Your task to perform on an android device: Add macbook air to the cart on walmart Image 0: 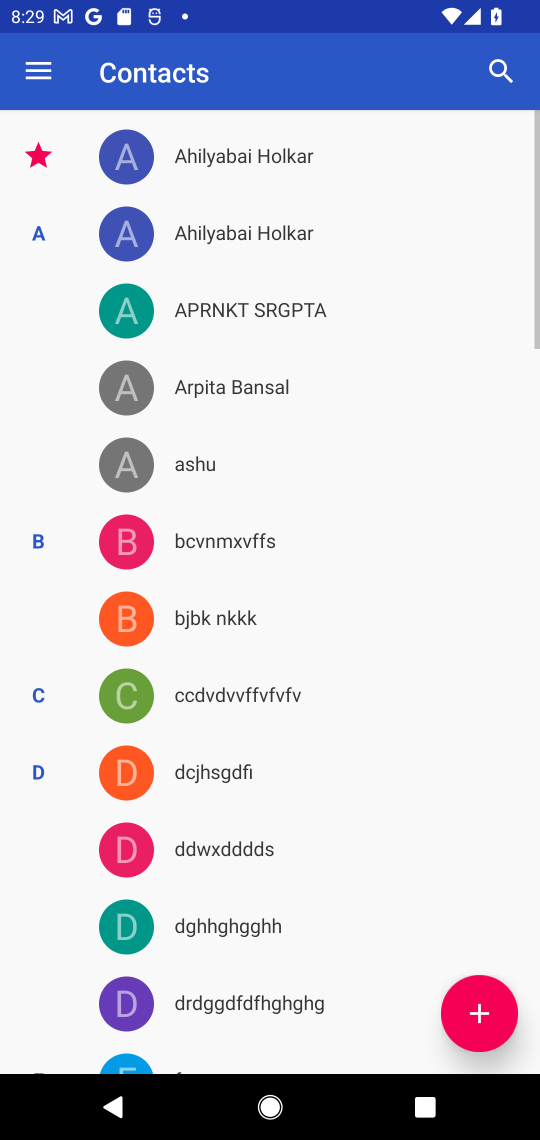
Step 0: press home button
Your task to perform on an android device: Add macbook air to the cart on walmart Image 1: 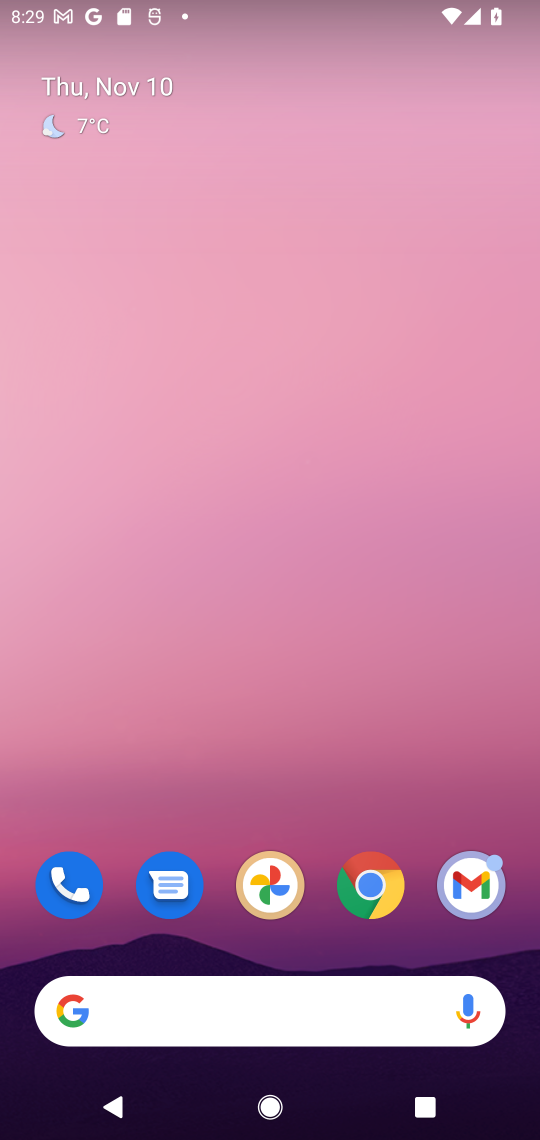
Step 1: click (365, 886)
Your task to perform on an android device: Add macbook air to the cart on walmart Image 2: 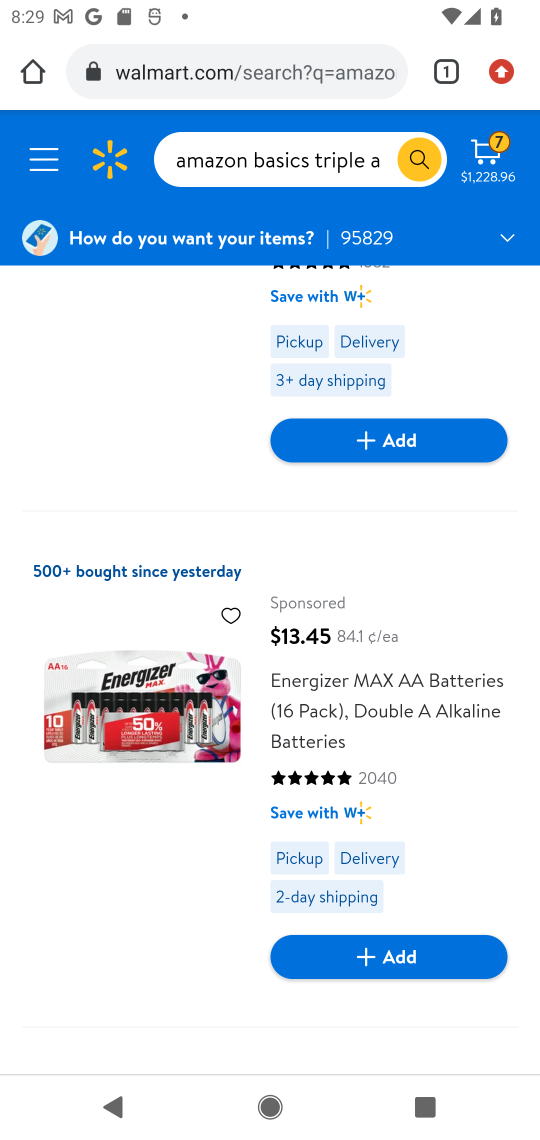
Step 2: click (363, 152)
Your task to perform on an android device: Add macbook air to the cart on walmart Image 3: 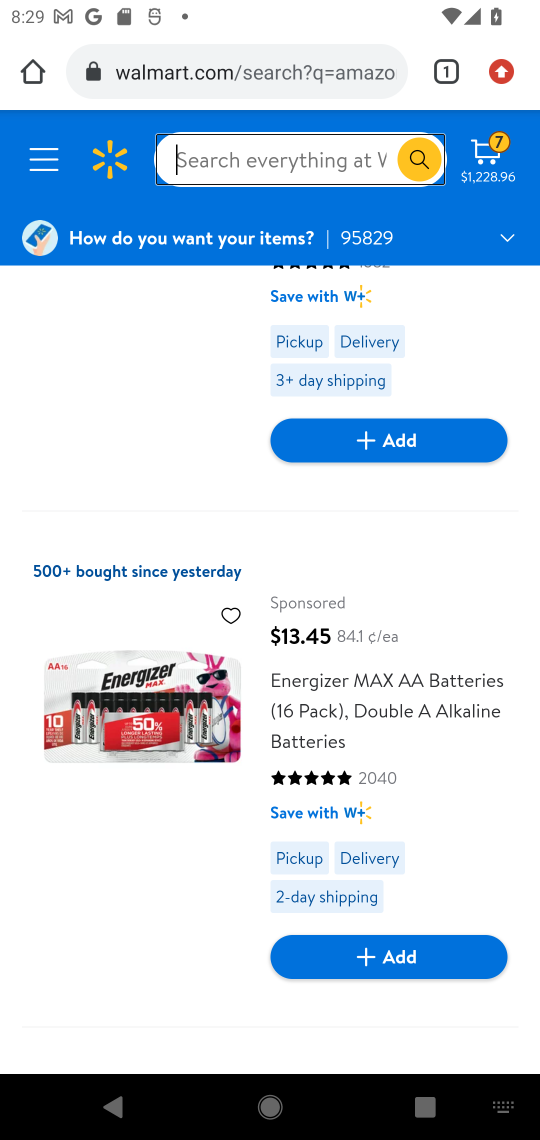
Step 3: type "macbook air"
Your task to perform on an android device: Add macbook air to the cart on walmart Image 4: 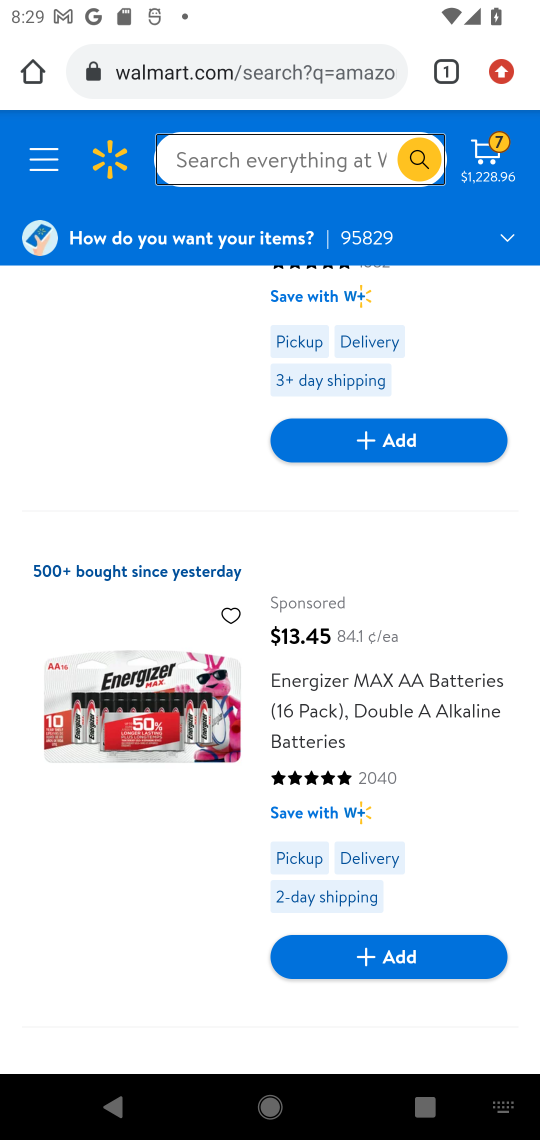
Step 4: press enter
Your task to perform on an android device: Add macbook air to the cart on walmart Image 5: 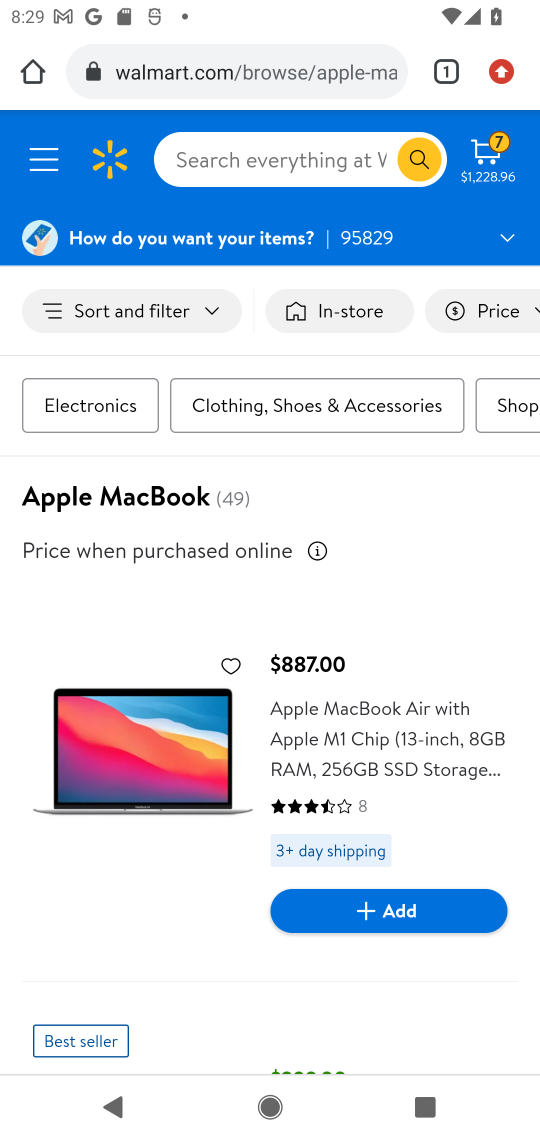
Step 5: click (143, 755)
Your task to perform on an android device: Add macbook air to the cart on walmart Image 6: 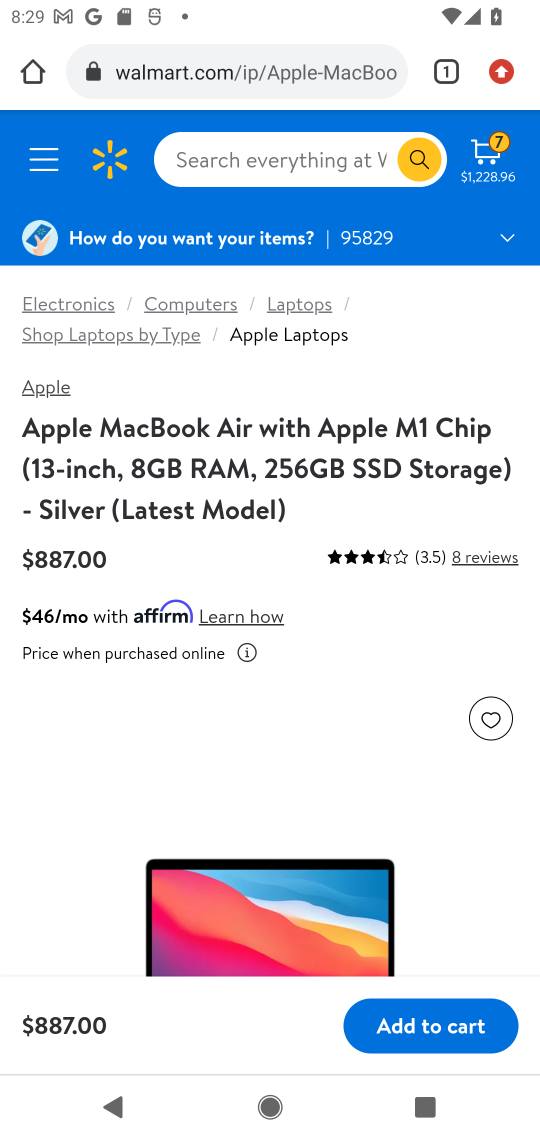
Step 6: click (434, 1030)
Your task to perform on an android device: Add macbook air to the cart on walmart Image 7: 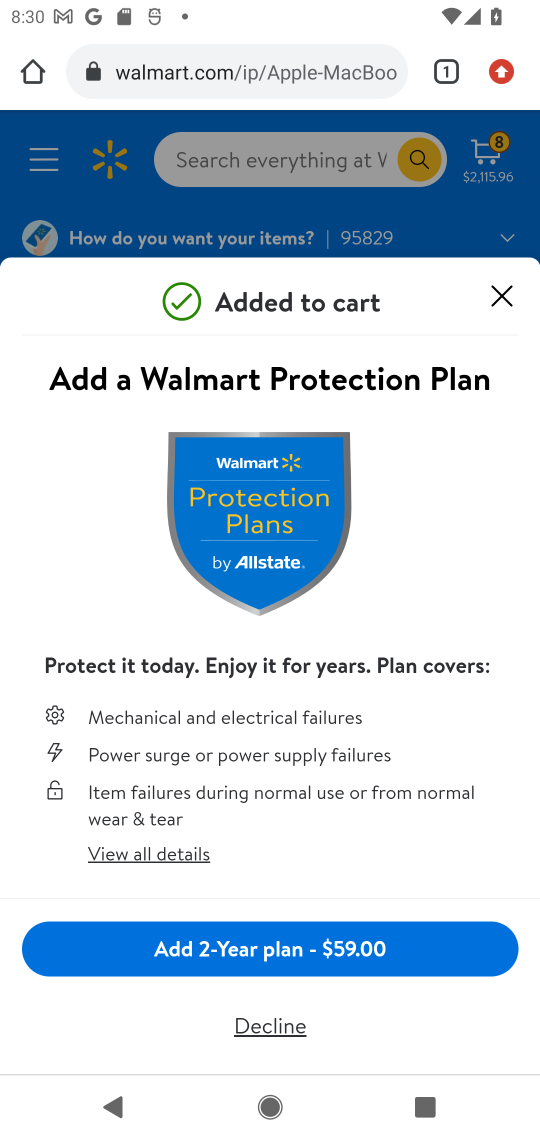
Step 7: task complete